Your task to perform on an android device: change text size in settings app Image 0: 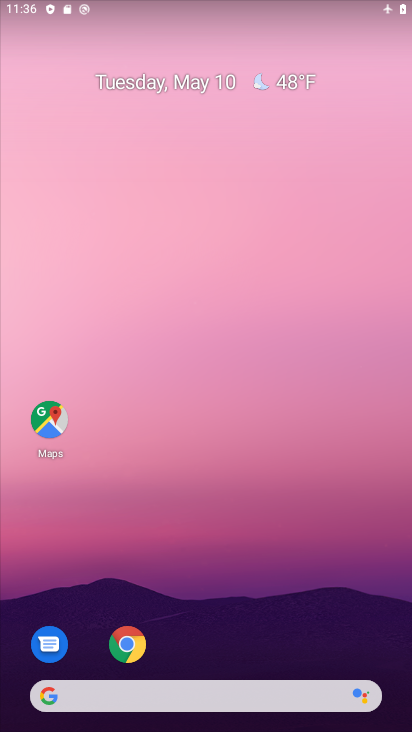
Step 0: drag from (229, 661) to (304, 86)
Your task to perform on an android device: change text size in settings app Image 1: 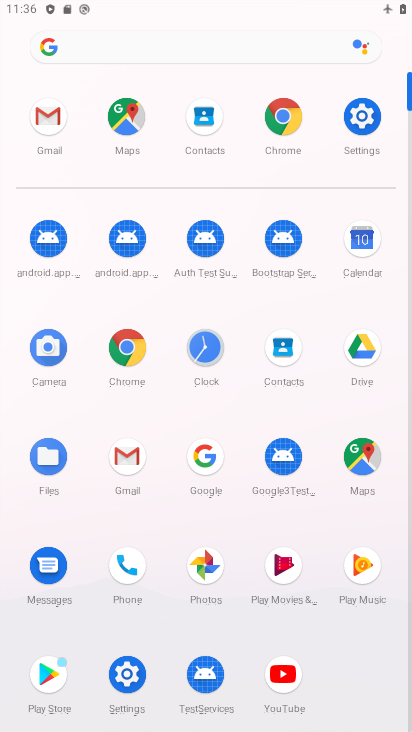
Step 1: click (374, 132)
Your task to perform on an android device: change text size in settings app Image 2: 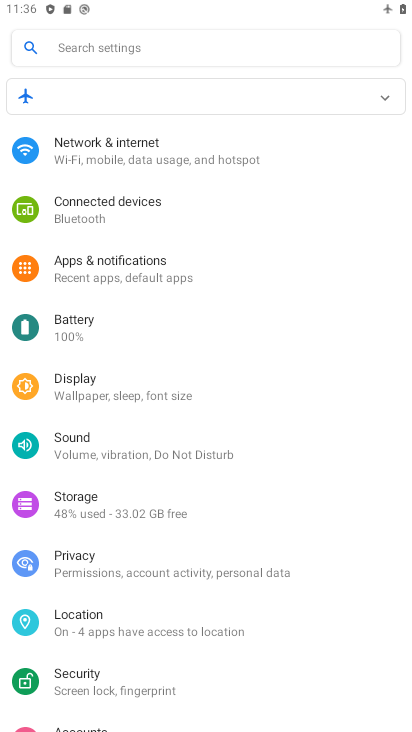
Step 2: click (100, 394)
Your task to perform on an android device: change text size in settings app Image 3: 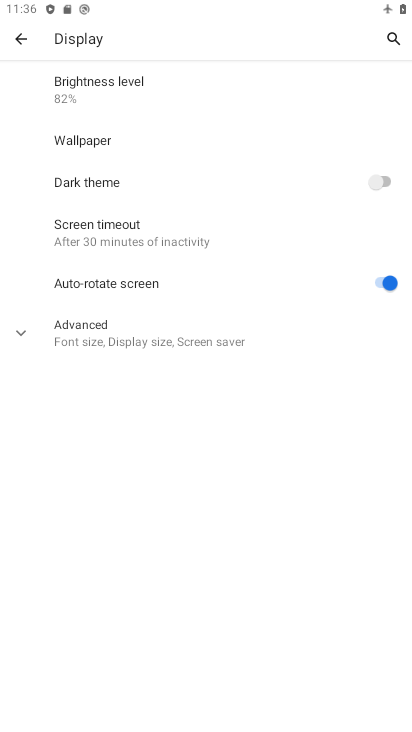
Step 3: click (116, 338)
Your task to perform on an android device: change text size in settings app Image 4: 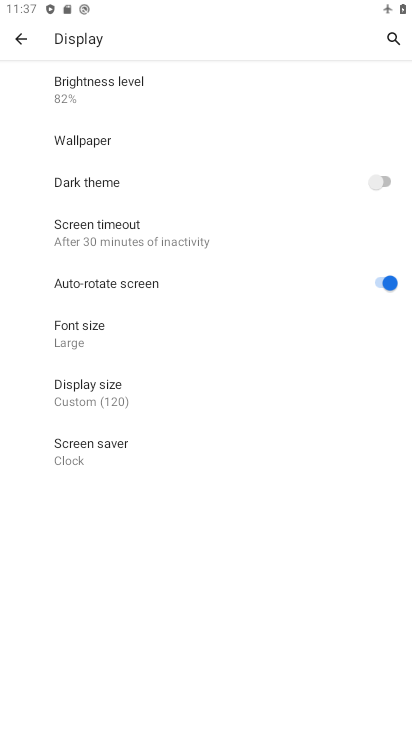
Step 4: click (99, 338)
Your task to perform on an android device: change text size in settings app Image 5: 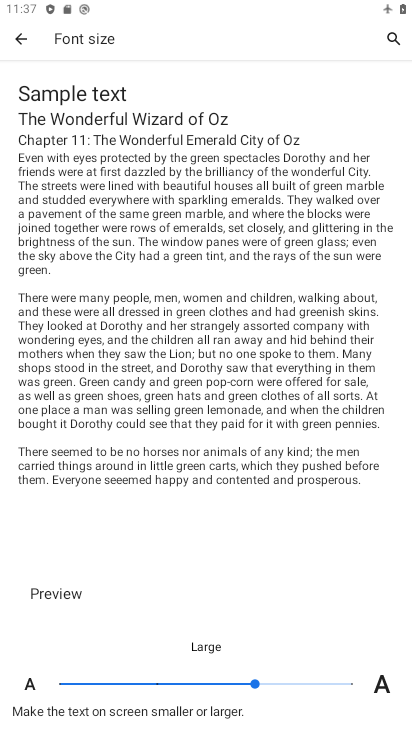
Step 5: click (150, 686)
Your task to perform on an android device: change text size in settings app Image 6: 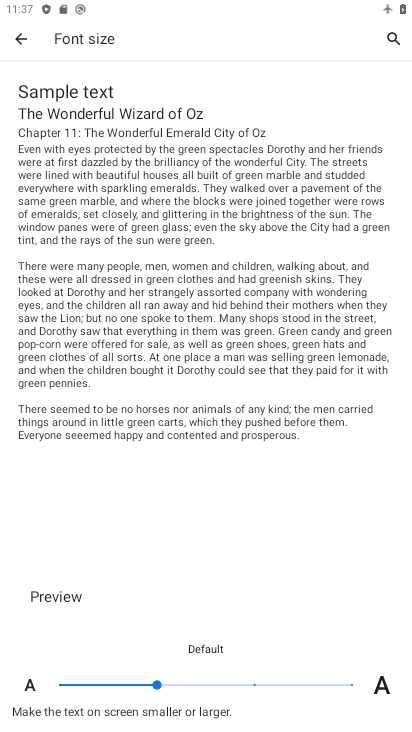
Step 6: task complete